Your task to perform on an android device: all mails in gmail Image 0: 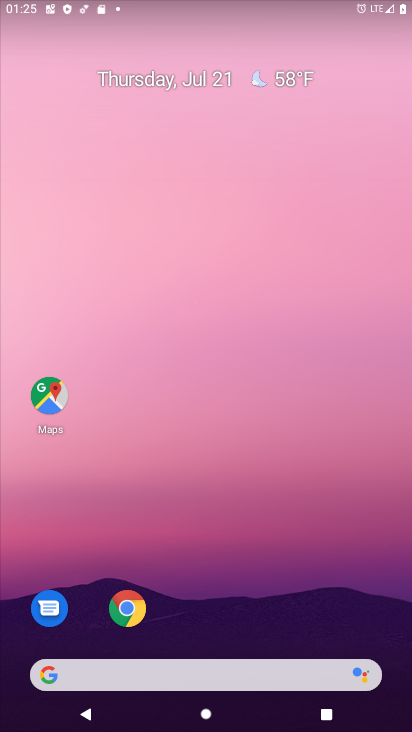
Step 0: press home button
Your task to perform on an android device: all mails in gmail Image 1: 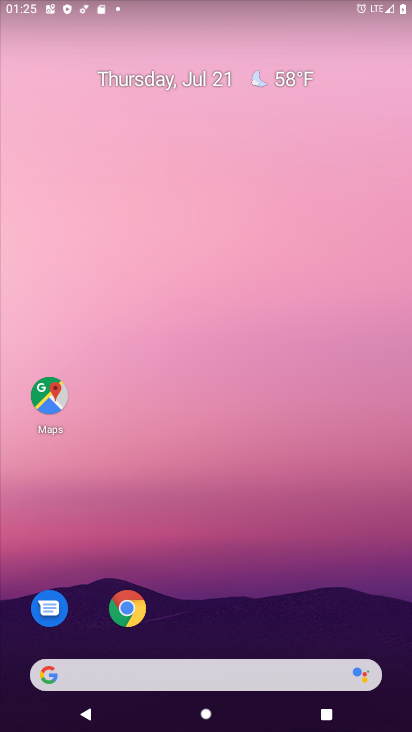
Step 1: drag from (208, 639) to (241, 53)
Your task to perform on an android device: all mails in gmail Image 2: 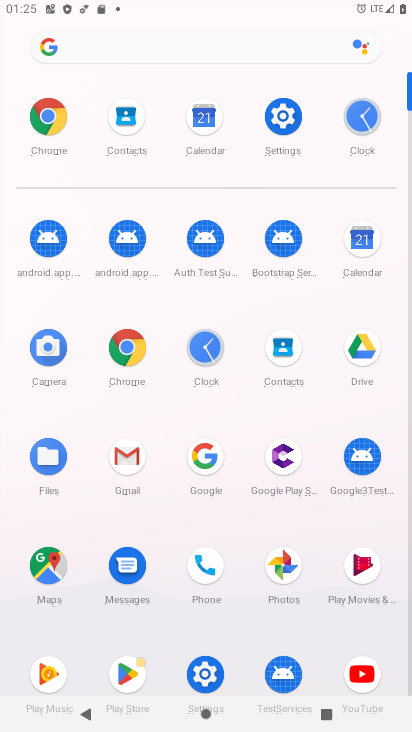
Step 2: click (123, 449)
Your task to perform on an android device: all mails in gmail Image 3: 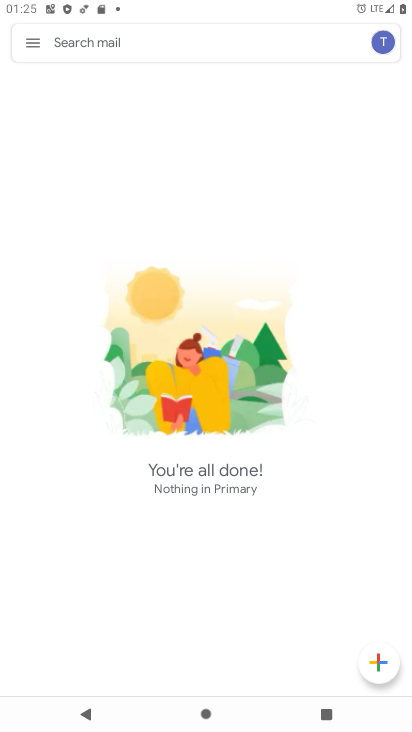
Step 3: click (33, 37)
Your task to perform on an android device: all mails in gmail Image 4: 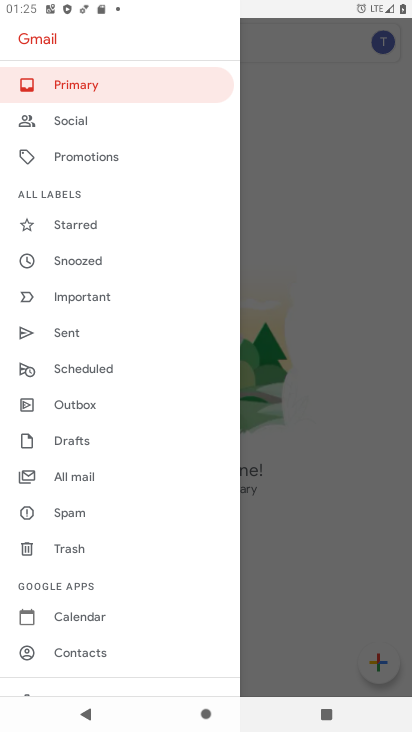
Step 4: click (104, 473)
Your task to perform on an android device: all mails in gmail Image 5: 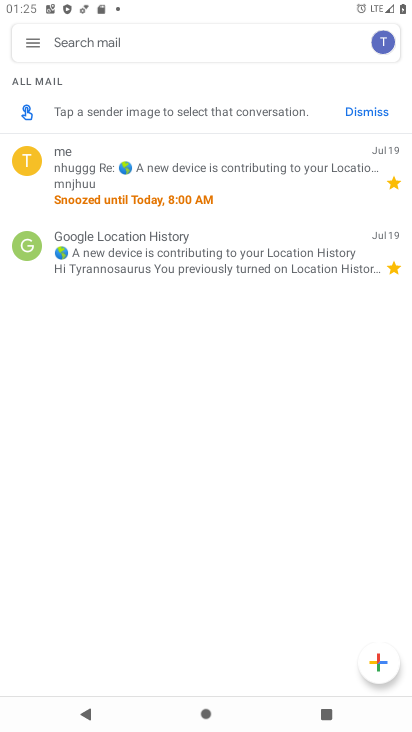
Step 5: click (35, 41)
Your task to perform on an android device: all mails in gmail Image 6: 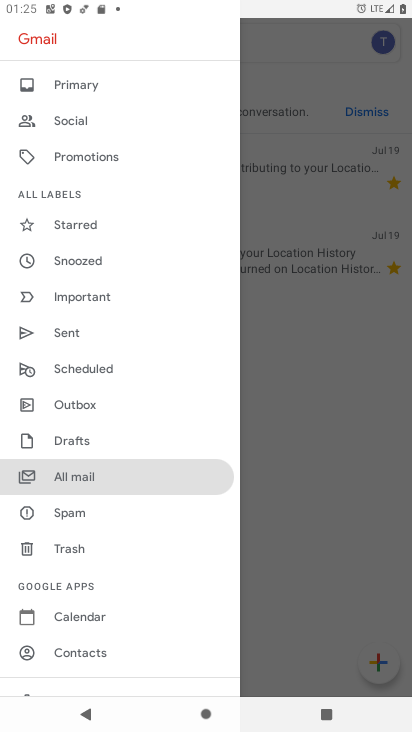
Step 6: click (105, 469)
Your task to perform on an android device: all mails in gmail Image 7: 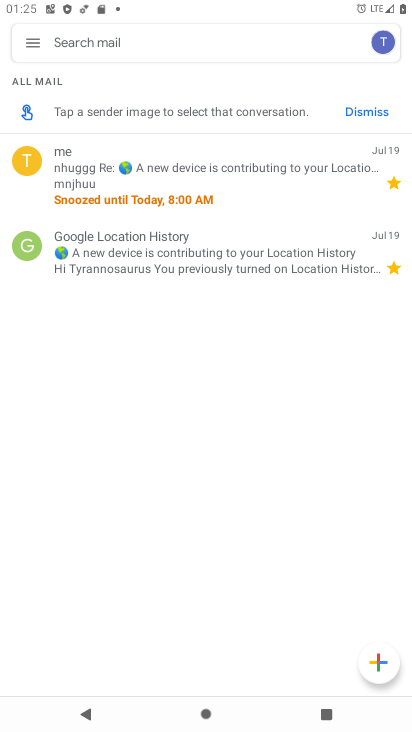
Step 7: task complete